Your task to perform on an android device: Go to ESPN.com Image 0: 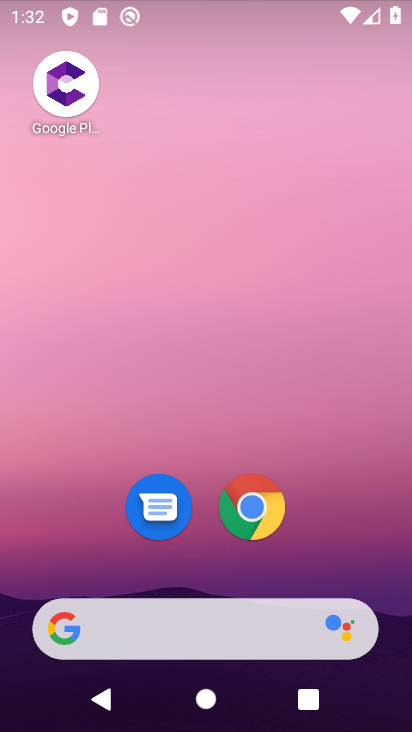
Step 0: drag from (225, 560) to (223, 3)
Your task to perform on an android device: Go to ESPN.com Image 1: 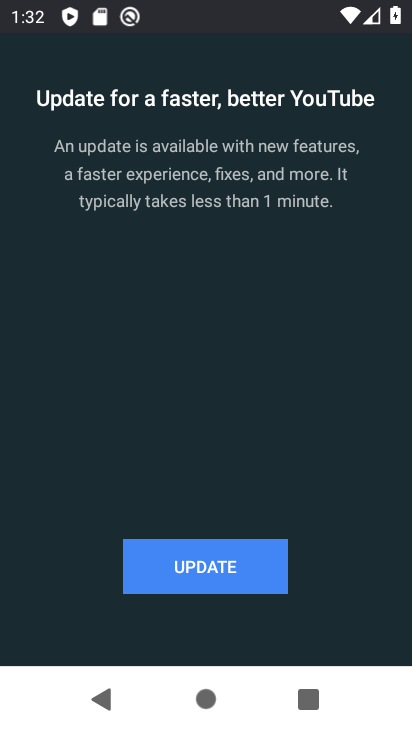
Step 1: press home button
Your task to perform on an android device: Go to ESPN.com Image 2: 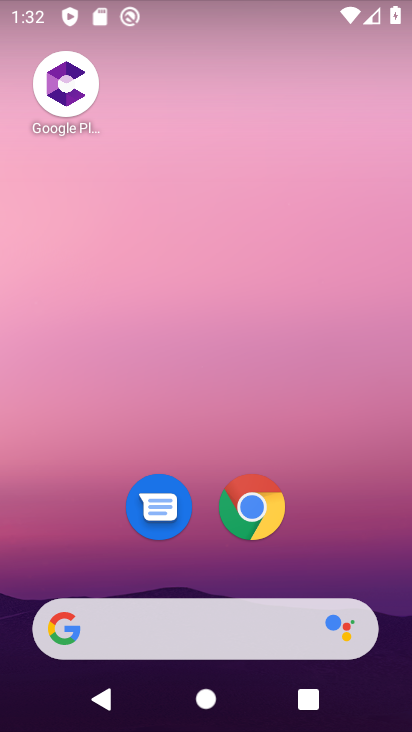
Step 2: drag from (185, 563) to (170, 64)
Your task to perform on an android device: Go to ESPN.com Image 3: 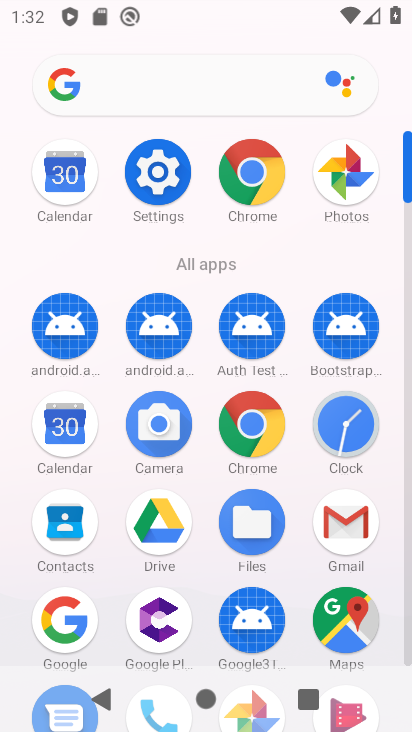
Step 3: drag from (209, 573) to (216, 235)
Your task to perform on an android device: Go to ESPN.com Image 4: 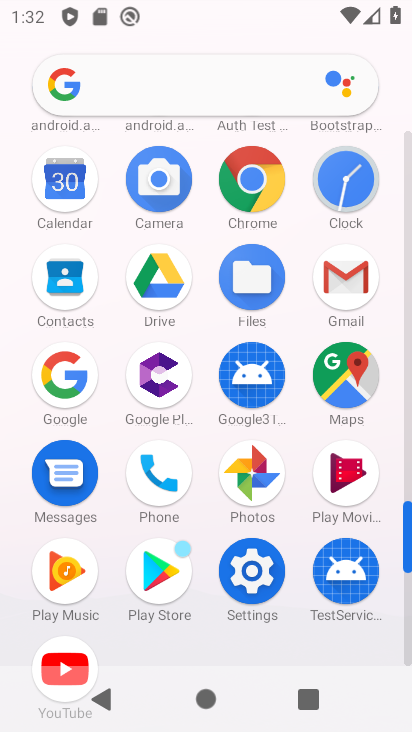
Step 4: drag from (252, 271) to (284, 711)
Your task to perform on an android device: Go to ESPN.com Image 5: 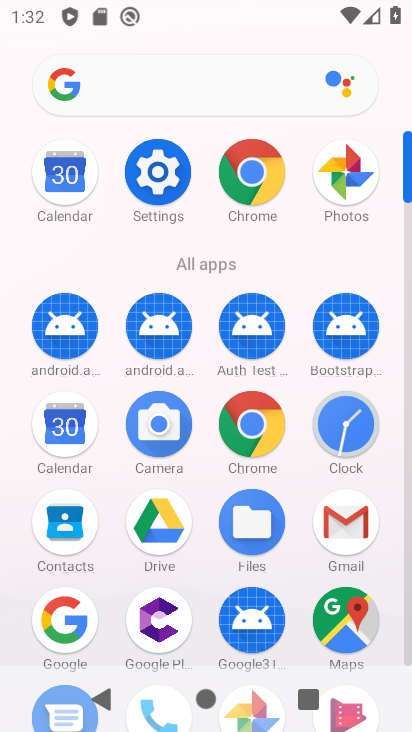
Step 5: drag from (244, 632) to (223, 185)
Your task to perform on an android device: Go to ESPN.com Image 6: 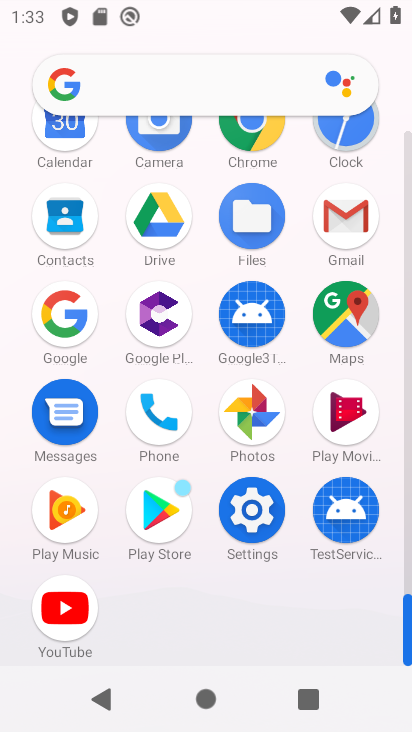
Step 6: drag from (231, 267) to (294, 709)
Your task to perform on an android device: Go to ESPN.com Image 7: 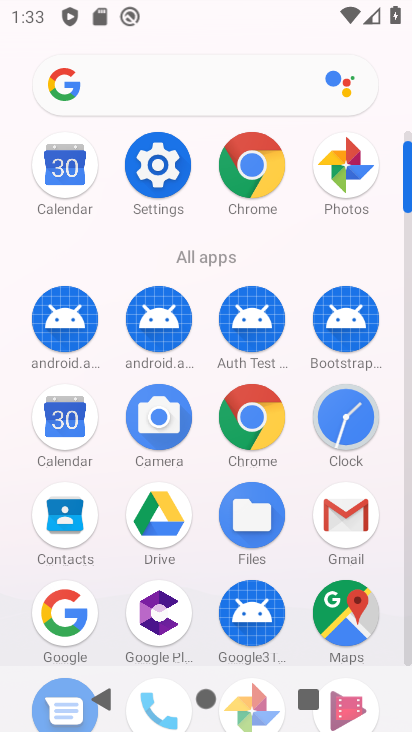
Step 7: click (252, 185)
Your task to perform on an android device: Go to ESPN.com Image 8: 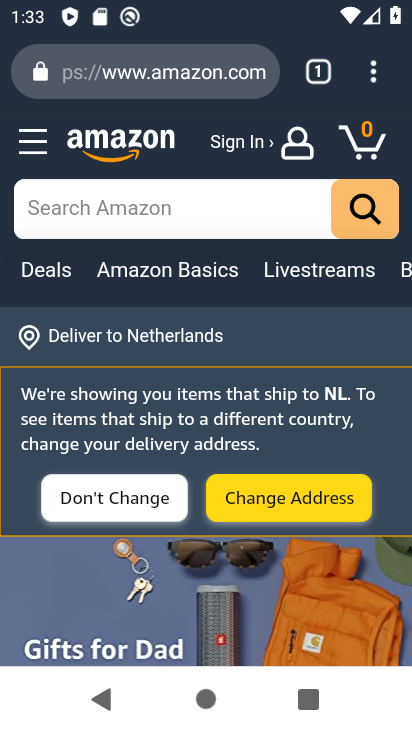
Step 8: click (368, 73)
Your task to perform on an android device: Go to ESPN.com Image 9: 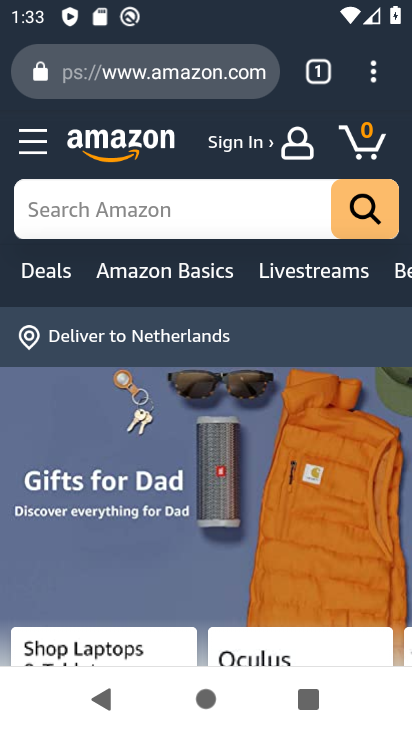
Step 9: press back button
Your task to perform on an android device: Go to ESPN.com Image 10: 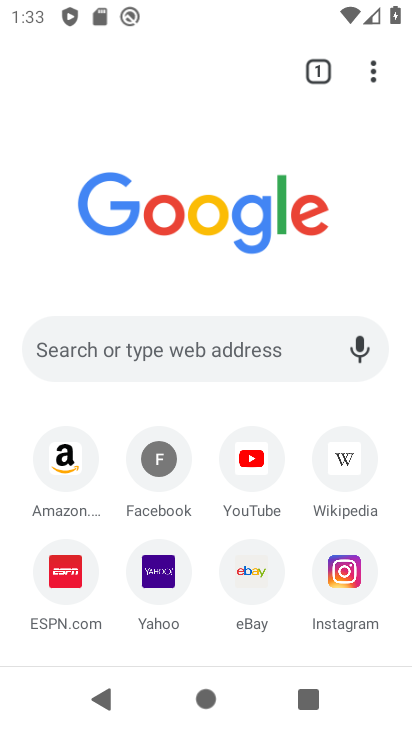
Step 10: click (62, 603)
Your task to perform on an android device: Go to ESPN.com Image 11: 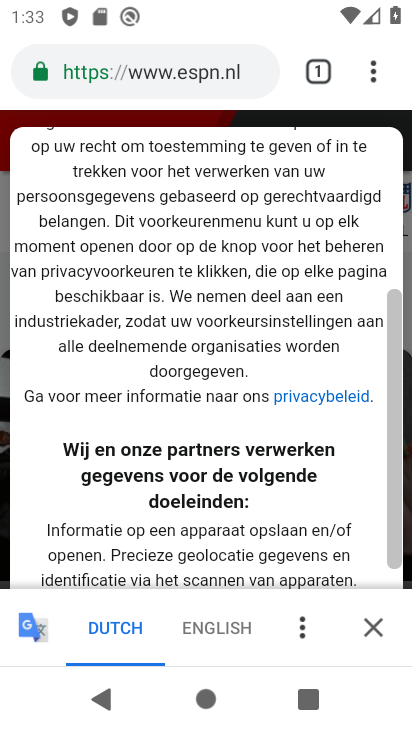
Step 11: task complete